Your task to perform on an android device: Go to Google Image 0: 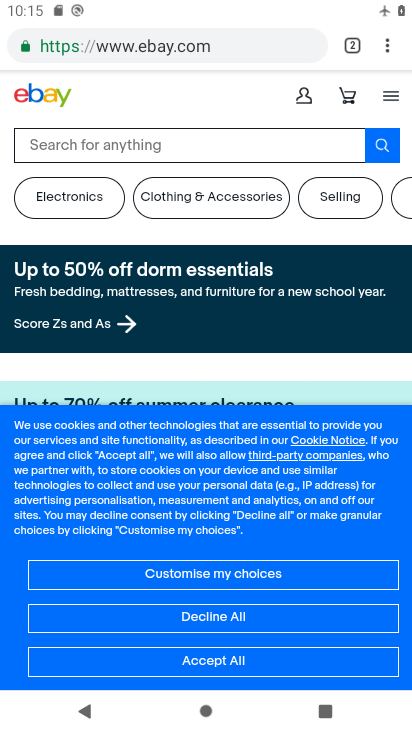
Step 0: press home button
Your task to perform on an android device: Go to Google Image 1: 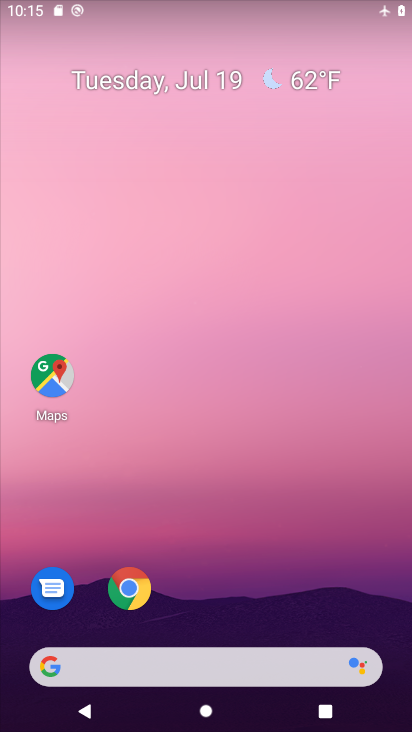
Step 1: click (211, 668)
Your task to perform on an android device: Go to Google Image 2: 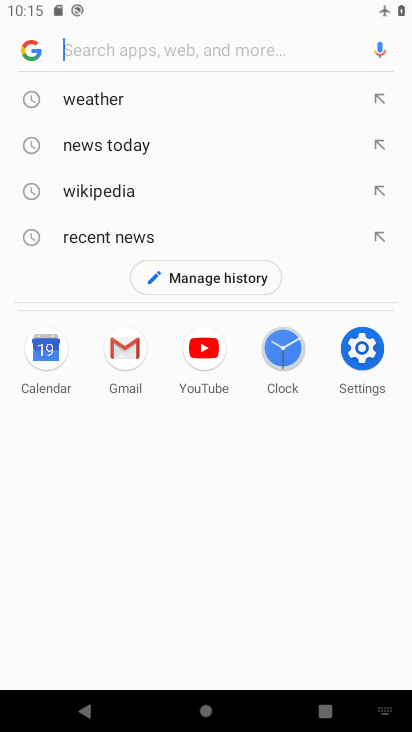
Step 2: task complete